Your task to perform on an android device: change the clock display to analog Image 0: 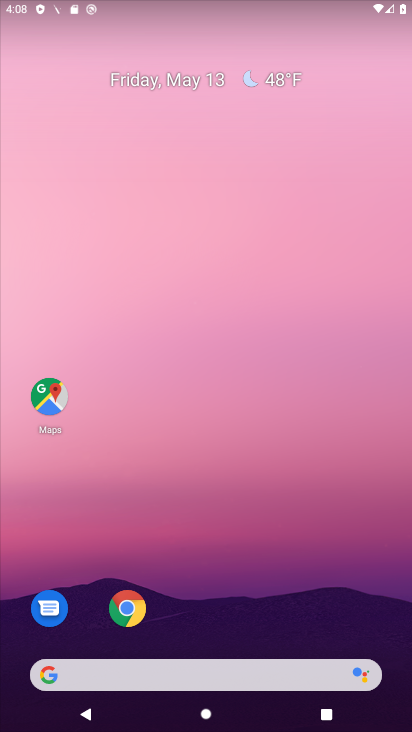
Step 0: drag from (222, 725) to (221, 136)
Your task to perform on an android device: change the clock display to analog Image 1: 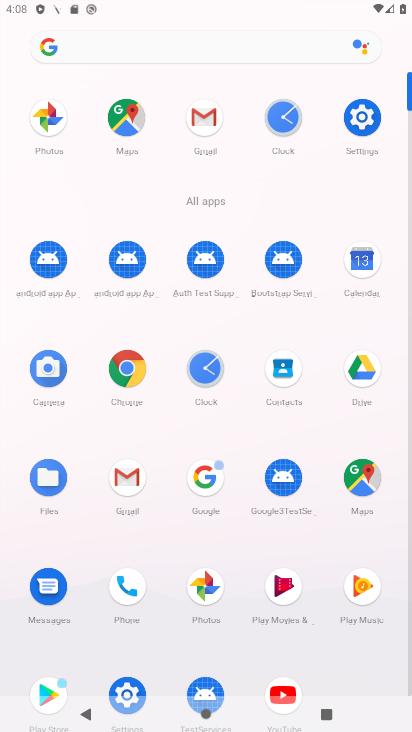
Step 1: click (205, 366)
Your task to perform on an android device: change the clock display to analog Image 2: 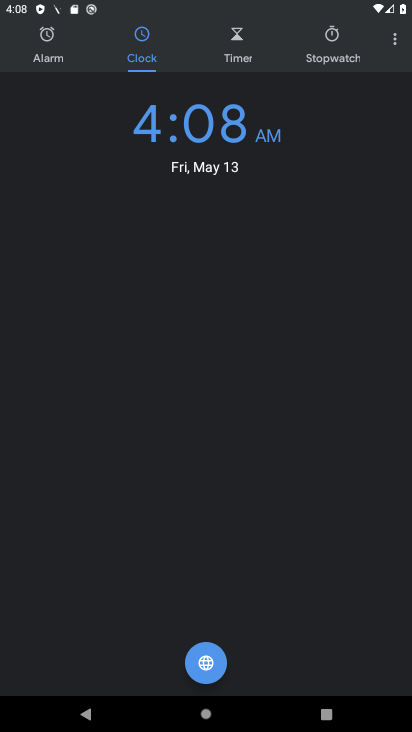
Step 2: click (395, 43)
Your task to perform on an android device: change the clock display to analog Image 3: 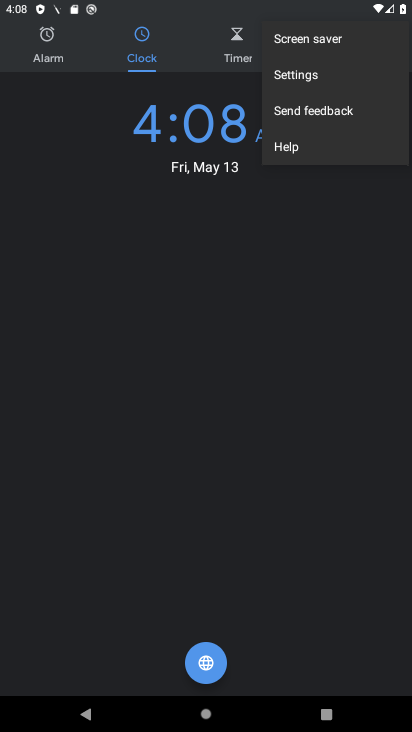
Step 3: click (317, 76)
Your task to perform on an android device: change the clock display to analog Image 4: 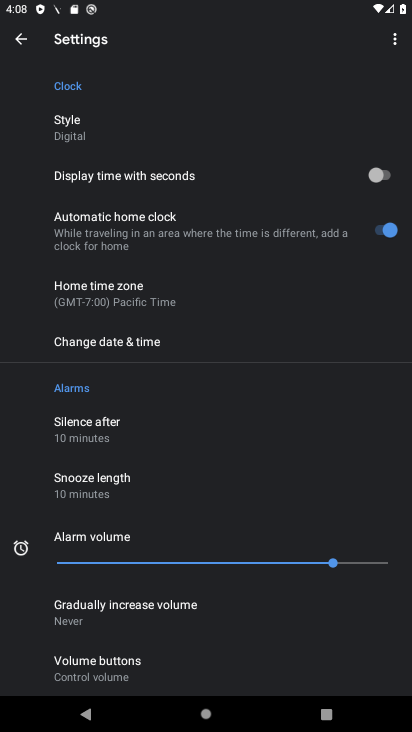
Step 4: click (73, 131)
Your task to perform on an android device: change the clock display to analog Image 5: 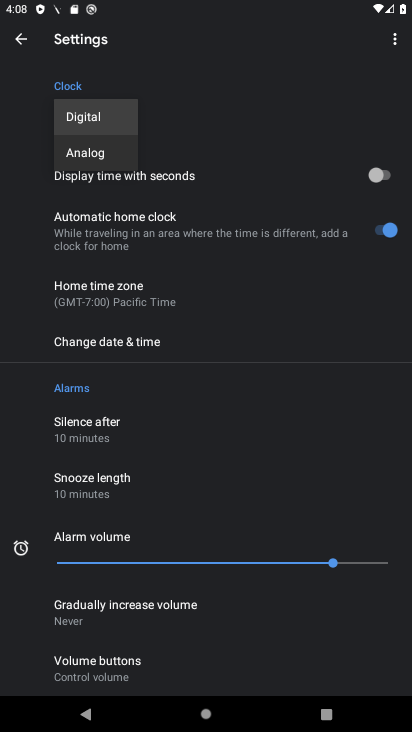
Step 5: click (99, 156)
Your task to perform on an android device: change the clock display to analog Image 6: 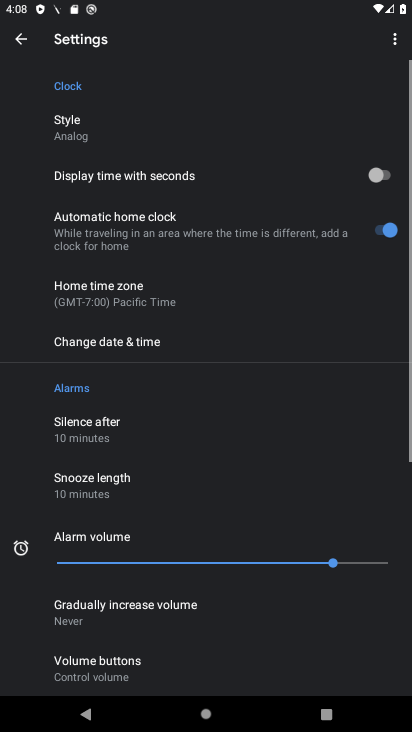
Step 6: task complete